Your task to perform on an android device: Open settings on Google Maps Image 0: 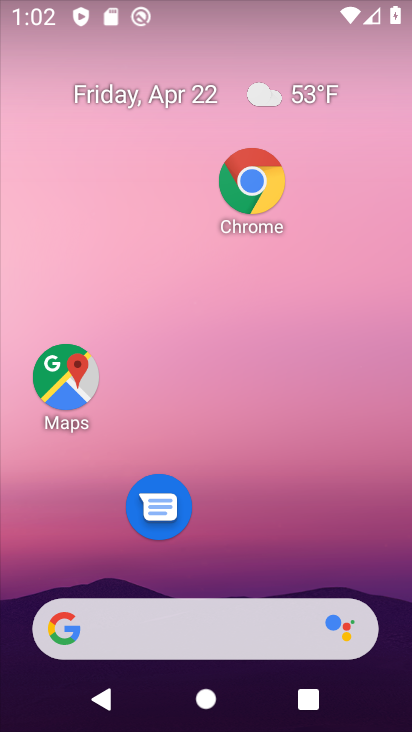
Step 0: click (69, 393)
Your task to perform on an android device: Open settings on Google Maps Image 1: 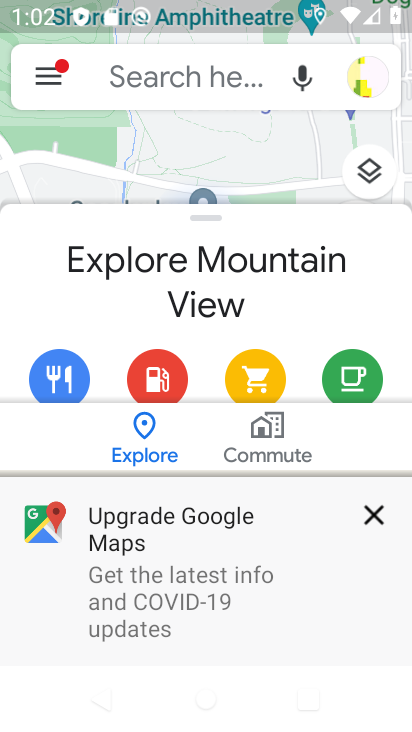
Step 1: click (46, 81)
Your task to perform on an android device: Open settings on Google Maps Image 2: 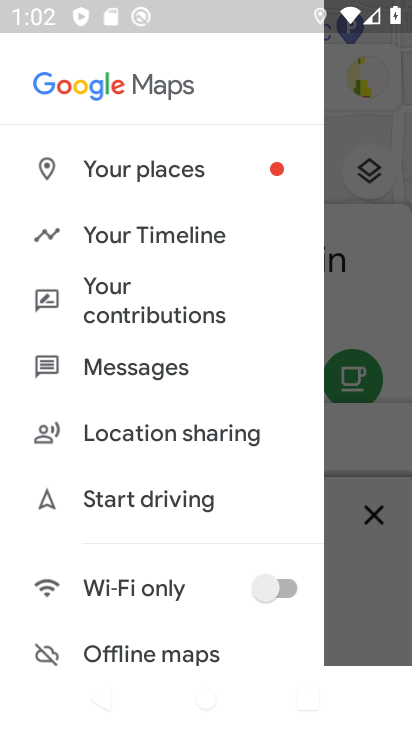
Step 2: drag from (123, 483) to (159, 168)
Your task to perform on an android device: Open settings on Google Maps Image 3: 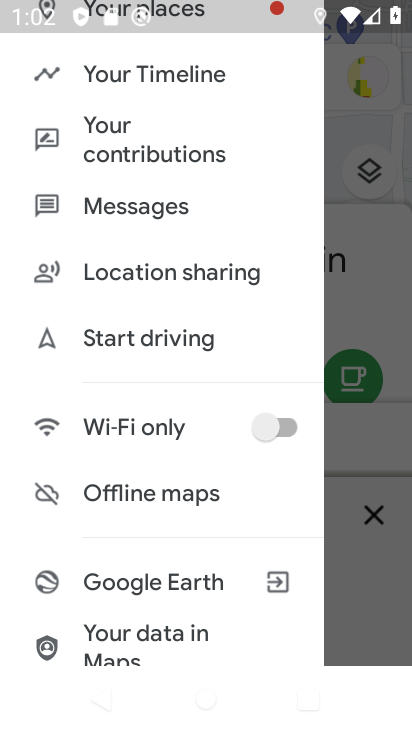
Step 3: drag from (135, 585) to (188, 177)
Your task to perform on an android device: Open settings on Google Maps Image 4: 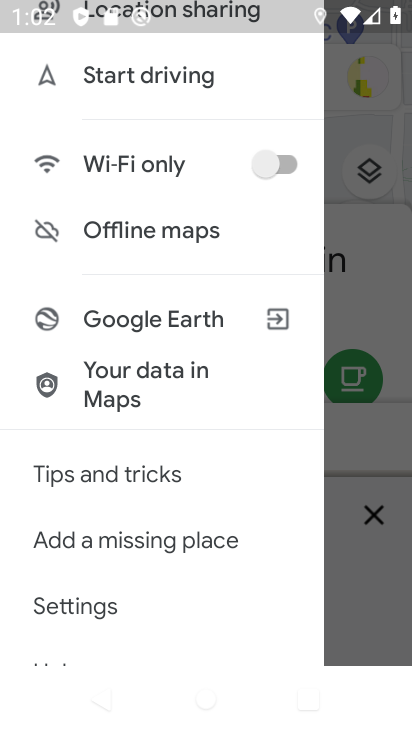
Step 4: click (115, 613)
Your task to perform on an android device: Open settings on Google Maps Image 5: 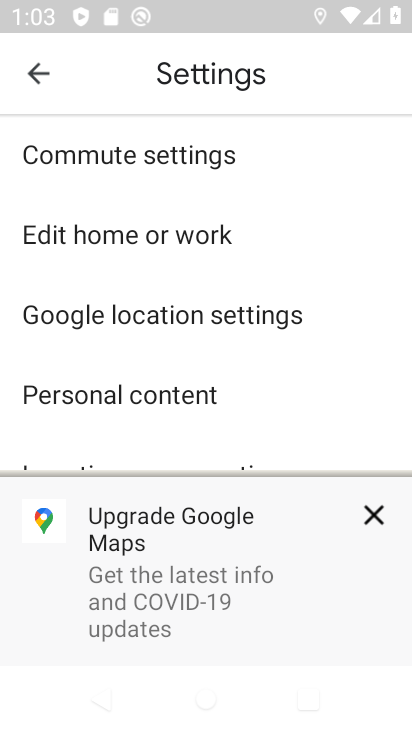
Step 5: click (378, 517)
Your task to perform on an android device: Open settings on Google Maps Image 6: 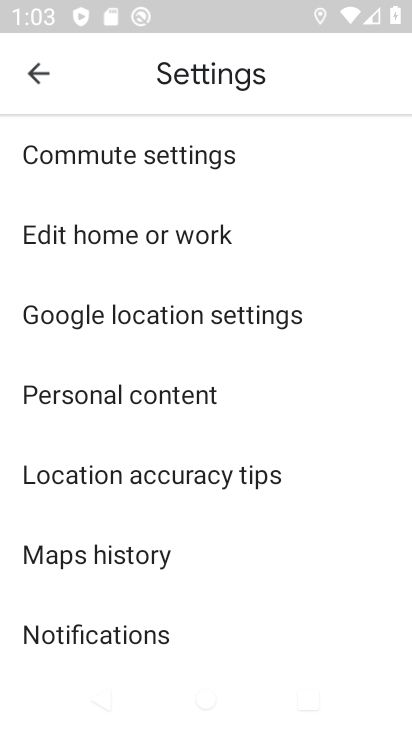
Step 6: task complete